Your task to perform on an android device: turn on priority inbox in the gmail app Image 0: 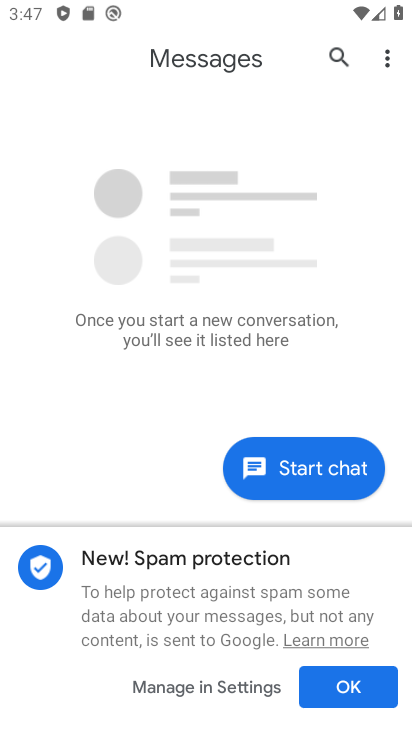
Step 0: press home button
Your task to perform on an android device: turn on priority inbox in the gmail app Image 1: 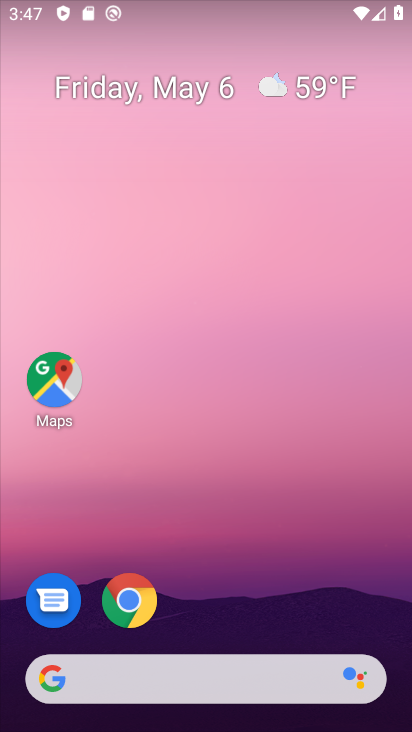
Step 1: drag from (254, 611) to (302, 60)
Your task to perform on an android device: turn on priority inbox in the gmail app Image 2: 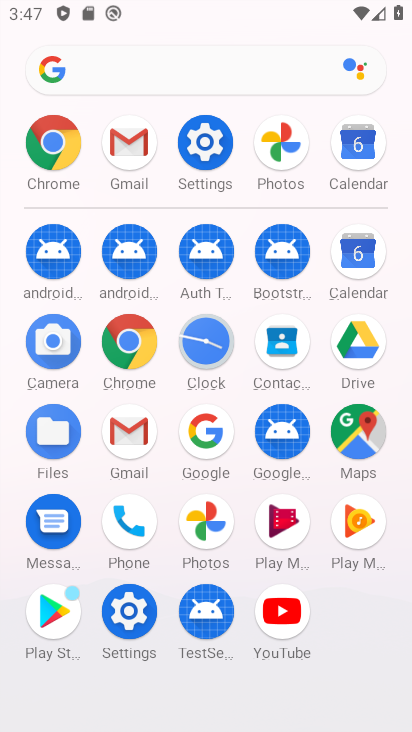
Step 2: click (131, 442)
Your task to perform on an android device: turn on priority inbox in the gmail app Image 3: 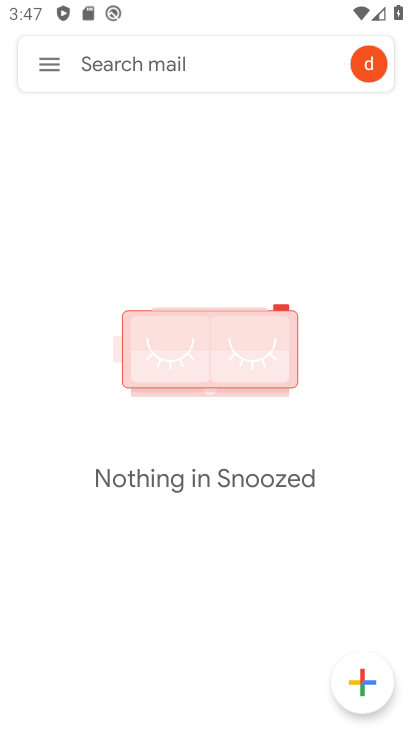
Step 3: click (54, 59)
Your task to perform on an android device: turn on priority inbox in the gmail app Image 4: 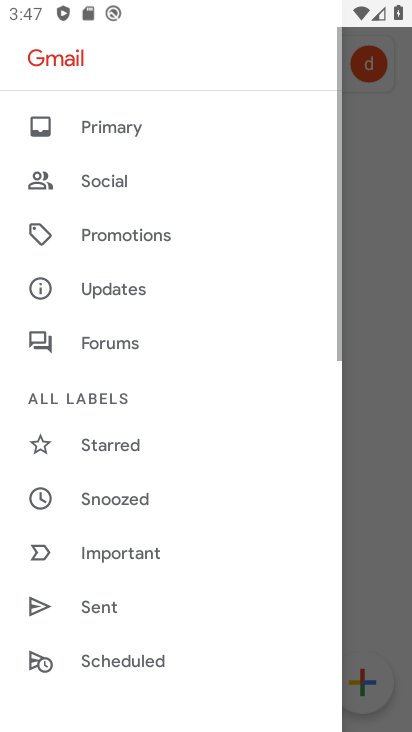
Step 4: drag from (121, 618) to (165, 107)
Your task to perform on an android device: turn on priority inbox in the gmail app Image 5: 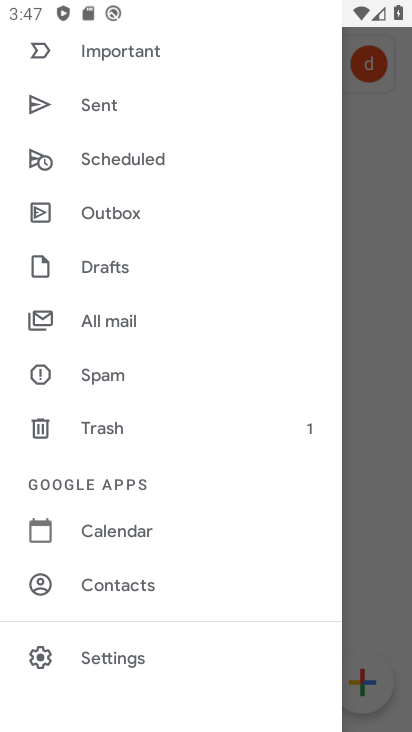
Step 5: drag from (125, 592) to (152, 318)
Your task to perform on an android device: turn on priority inbox in the gmail app Image 6: 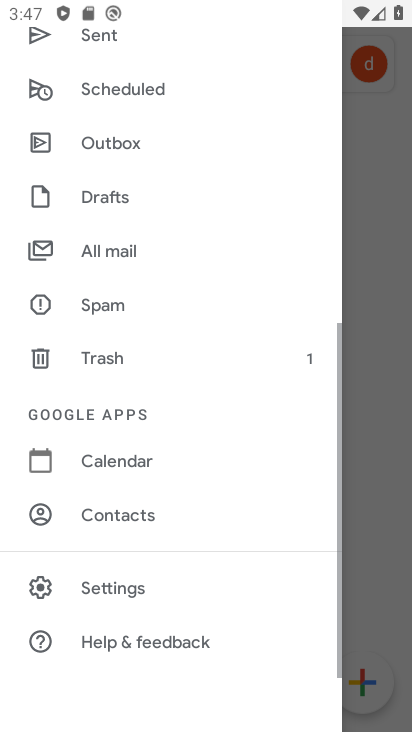
Step 6: click (88, 587)
Your task to perform on an android device: turn on priority inbox in the gmail app Image 7: 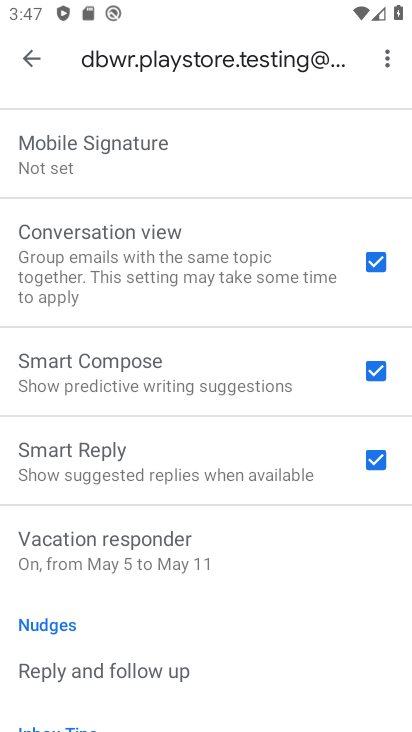
Step 7: drag from (89, 176) to (159, 697)
Your task to perform on an android device: turn on priority inbox in the gmail app Image 8: 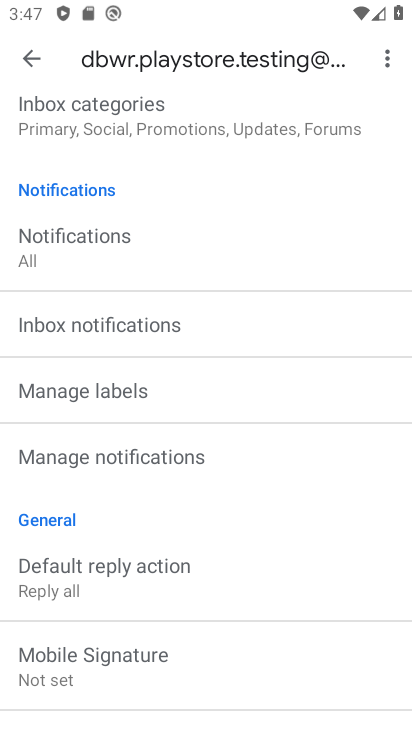
Step 8: drag from (128, 299) to (147, 676)
Your task to perform on an android device: turn on priority inbox in the gmail app Image 9: 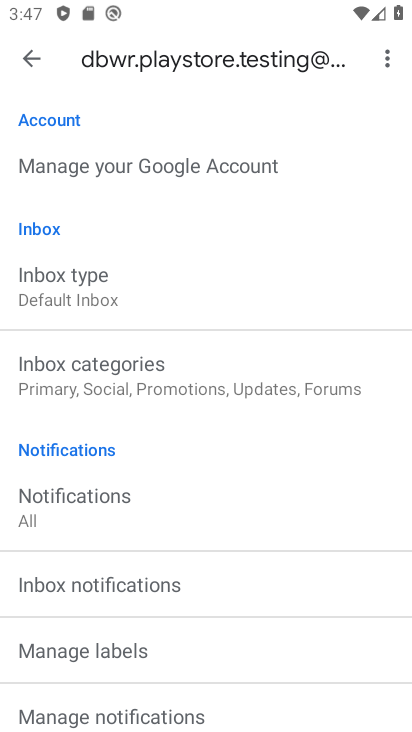
Step 9: click (97, 270)
Your task to perform on an android device: turn on priority inbox in the gmail app Image 10: 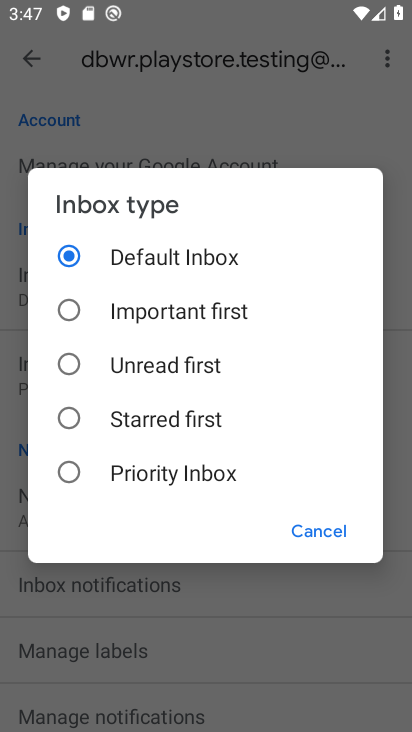
Step 10: click (96, 482)
Your task to perform on an android device: turn on priority inbox in the gmail app Image 11: 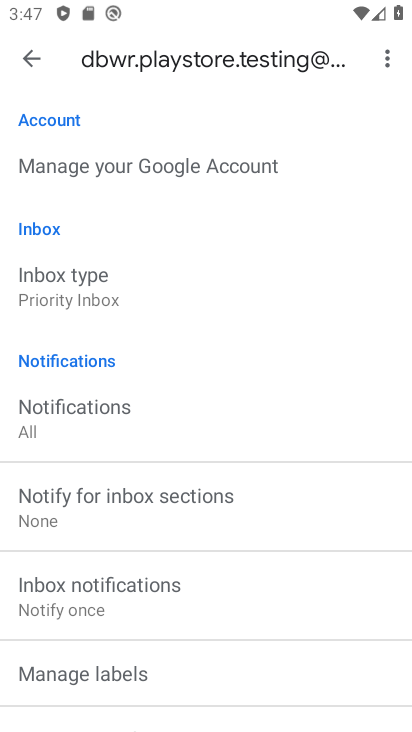
Step 11: task complete